Your task to perform on an android device: Open Wikipedia Image 0: 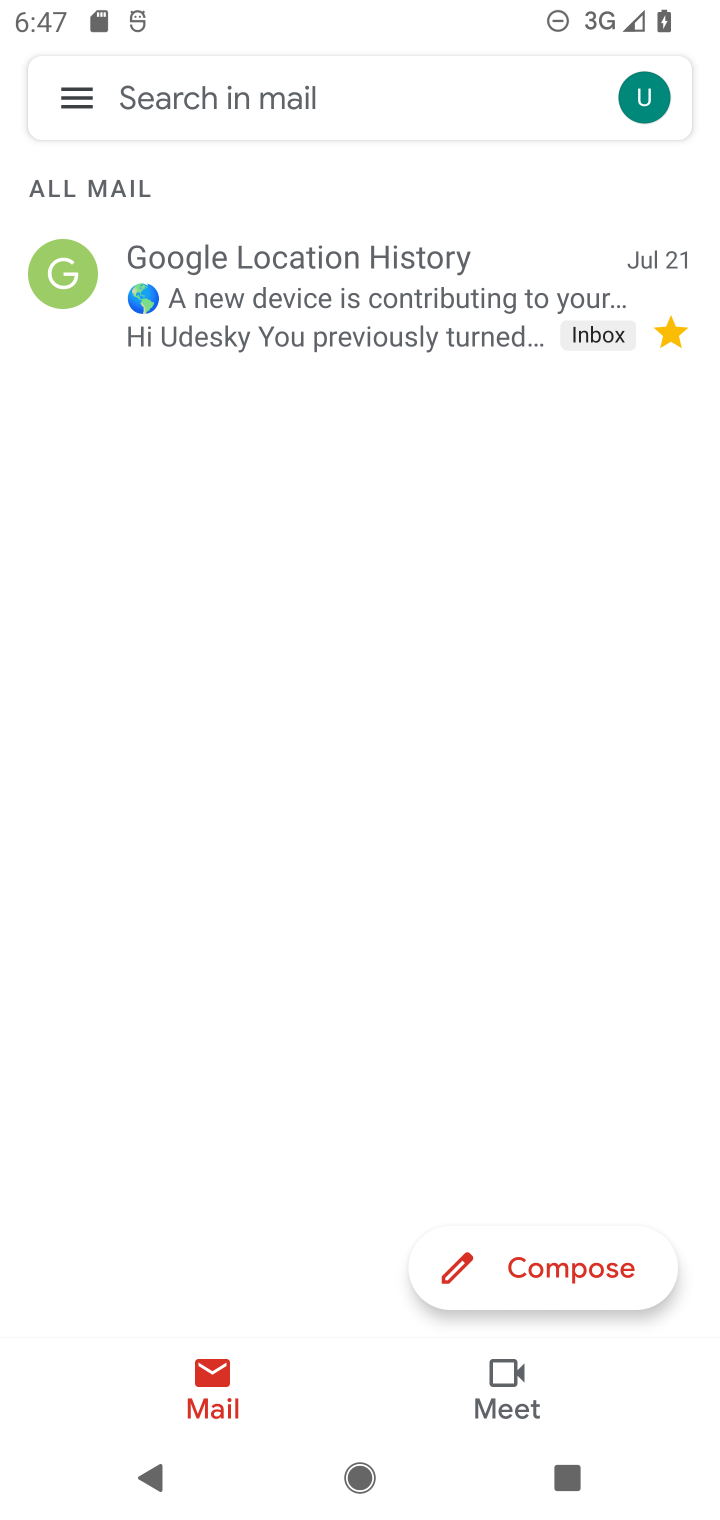
Step 0: press home button
Your task to perform on an android device: Open Wikipedia Image 1: 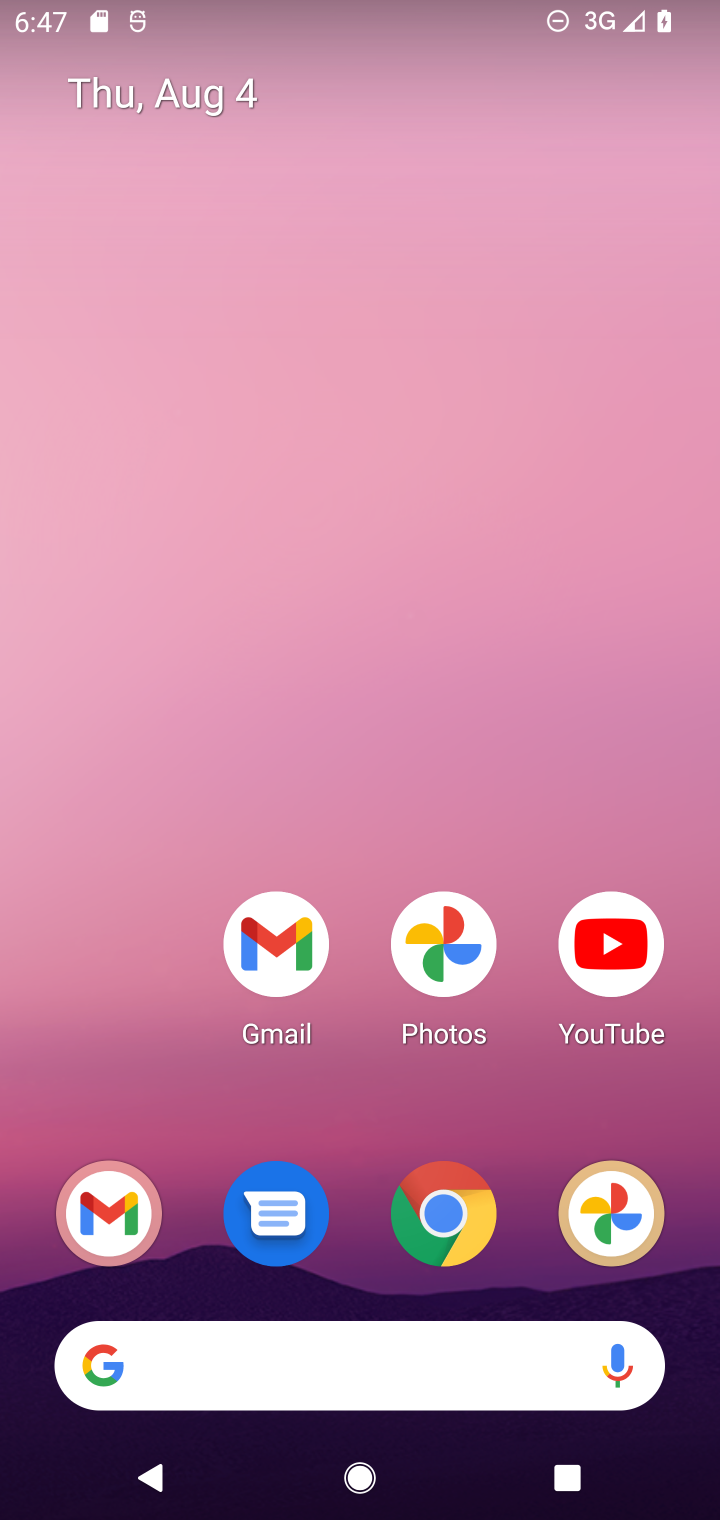
Step 1: drag from (159, 1081) to (119, 215)
Your task to perform on an android device: Open Wikipedia Image 2: 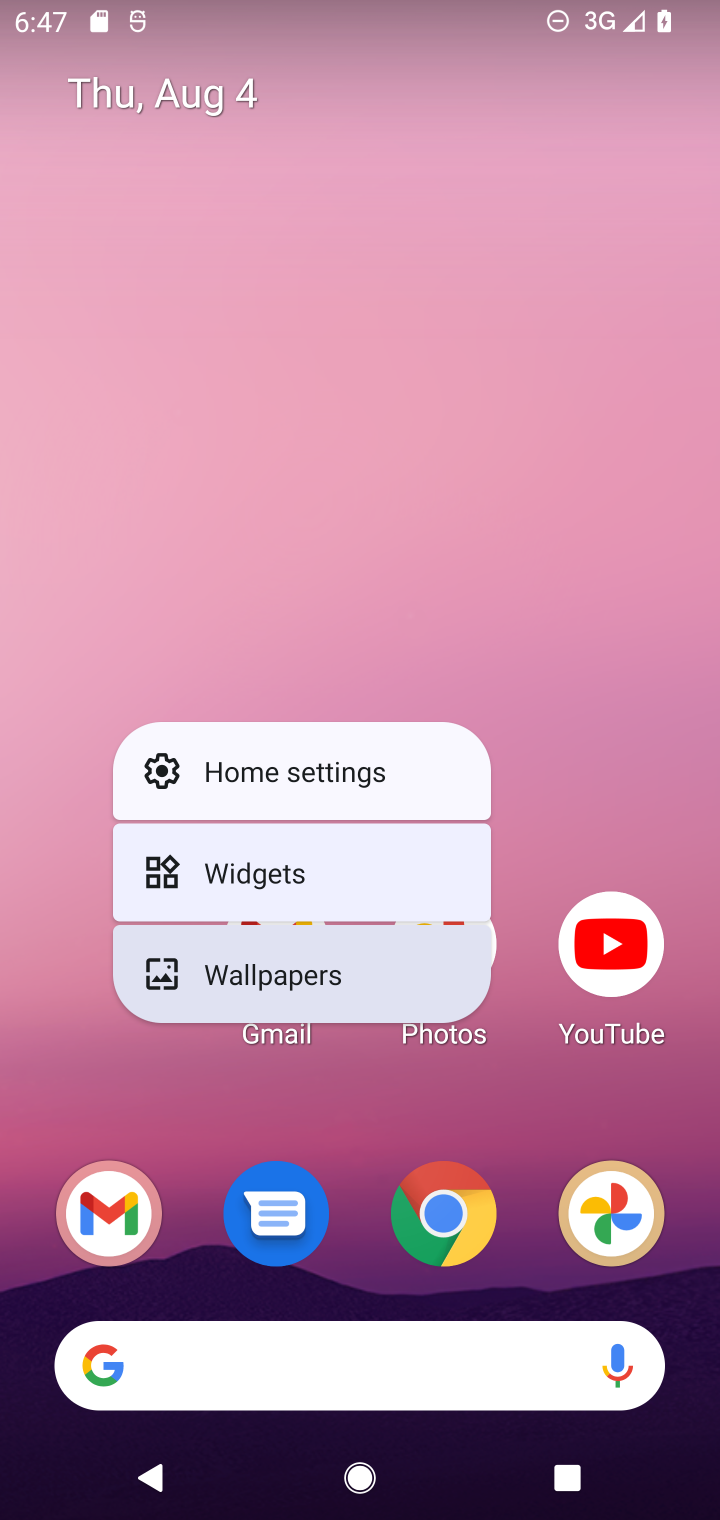
Step 2: click (92, 982)
Your task to perform on an android device: Open Wikipedia Image 3: 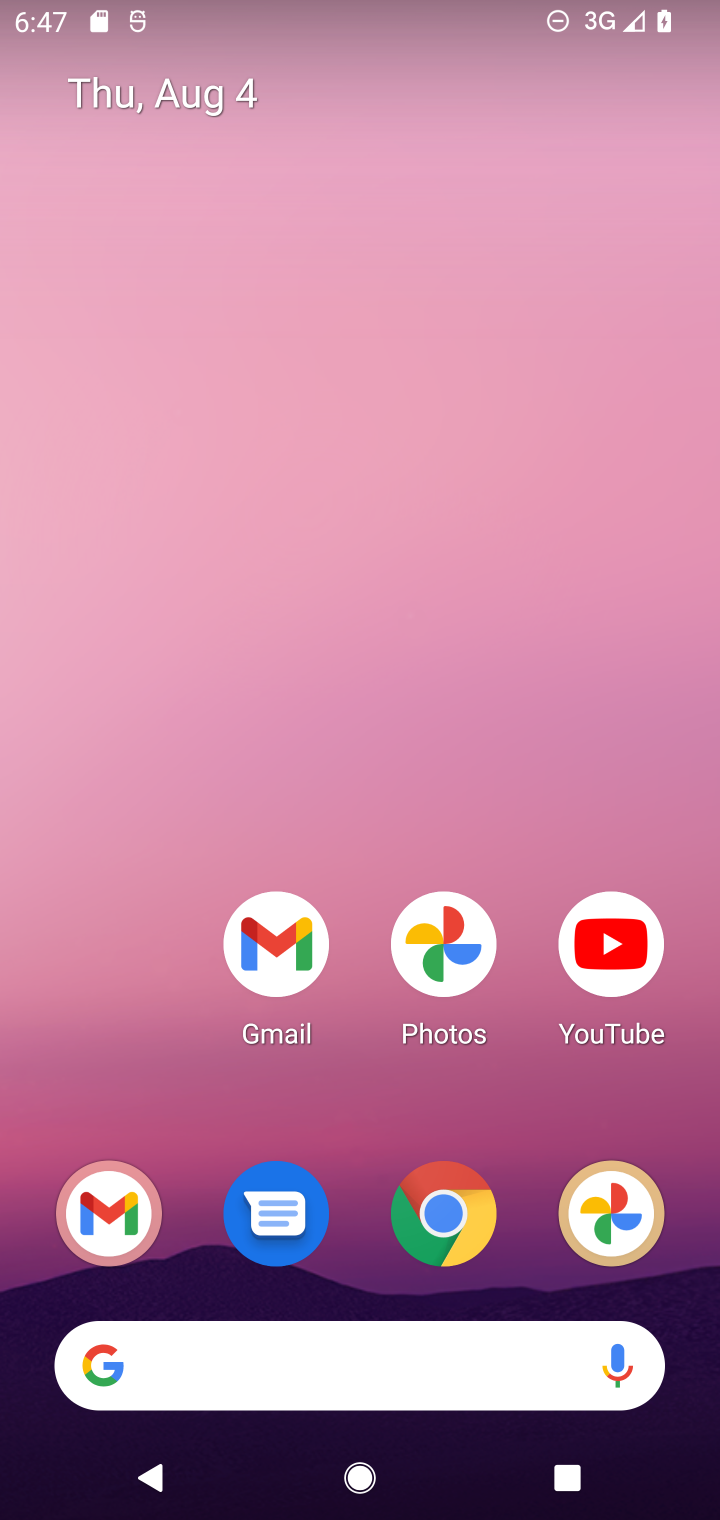
Step 3: drag from (114, 1021) to (111, 171)
Your task to perform on an android device: Open Wikipedia Image 4: 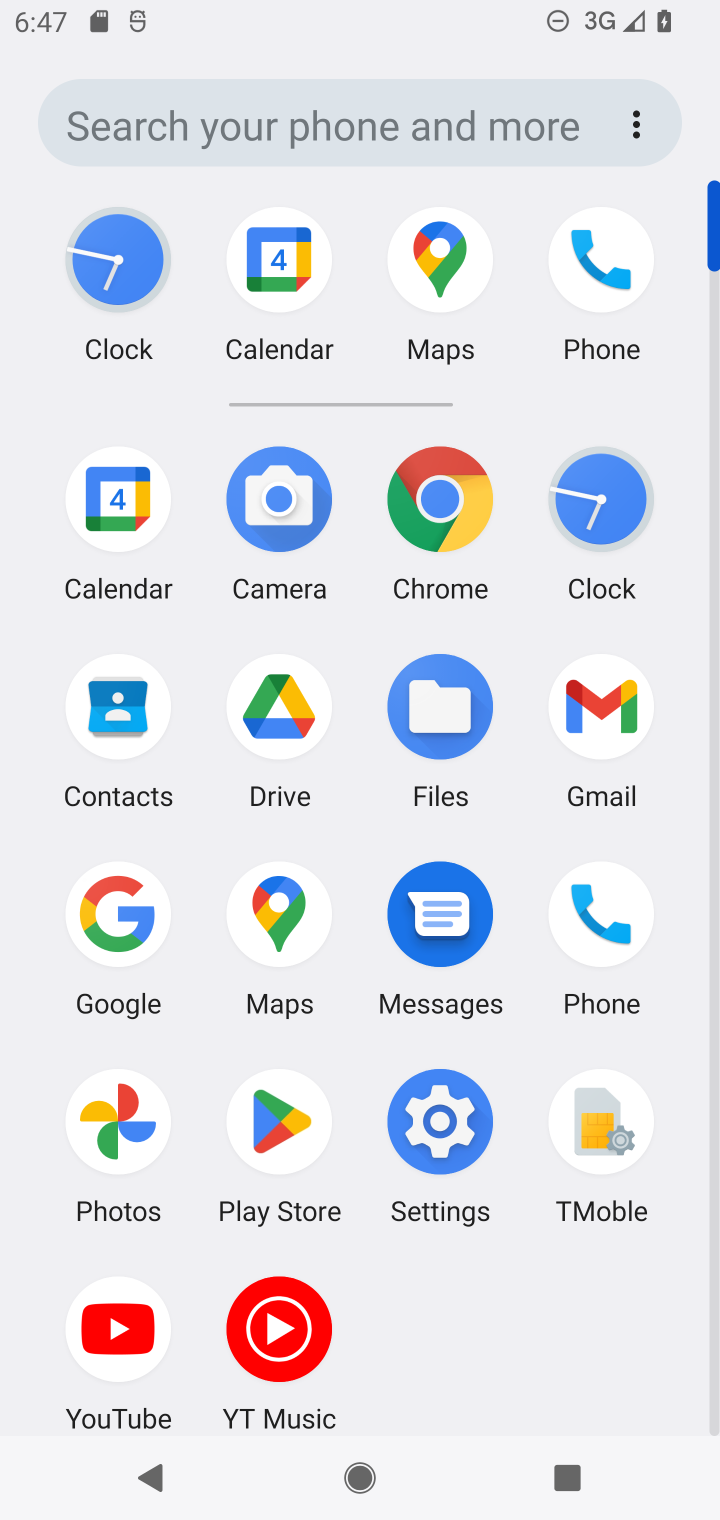
Step 4: click (437, 499)
Your task to perform on an android device: Open Wikipedia Image 5: 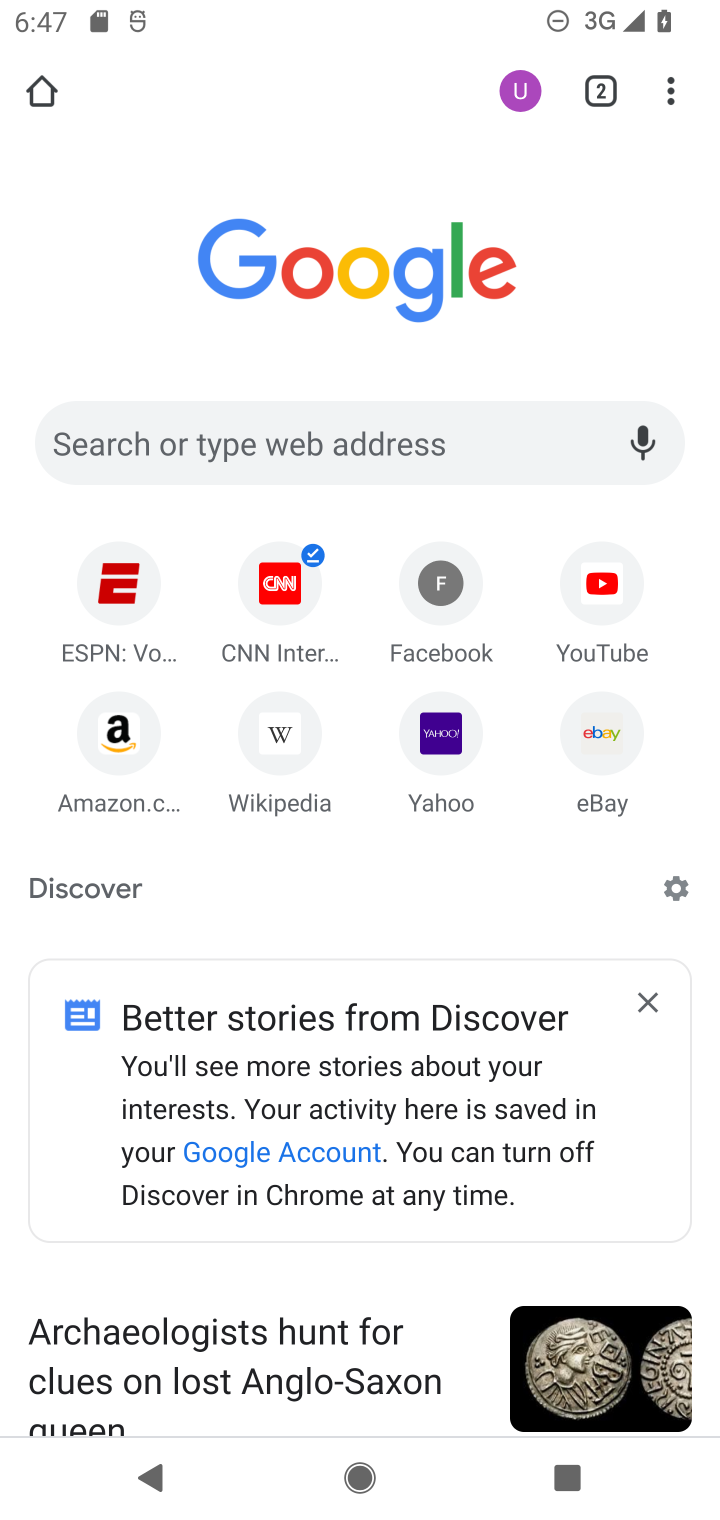
Step 5: click (458, 429)
Your task to perform on an android device: Open Wikipedia Image 6: 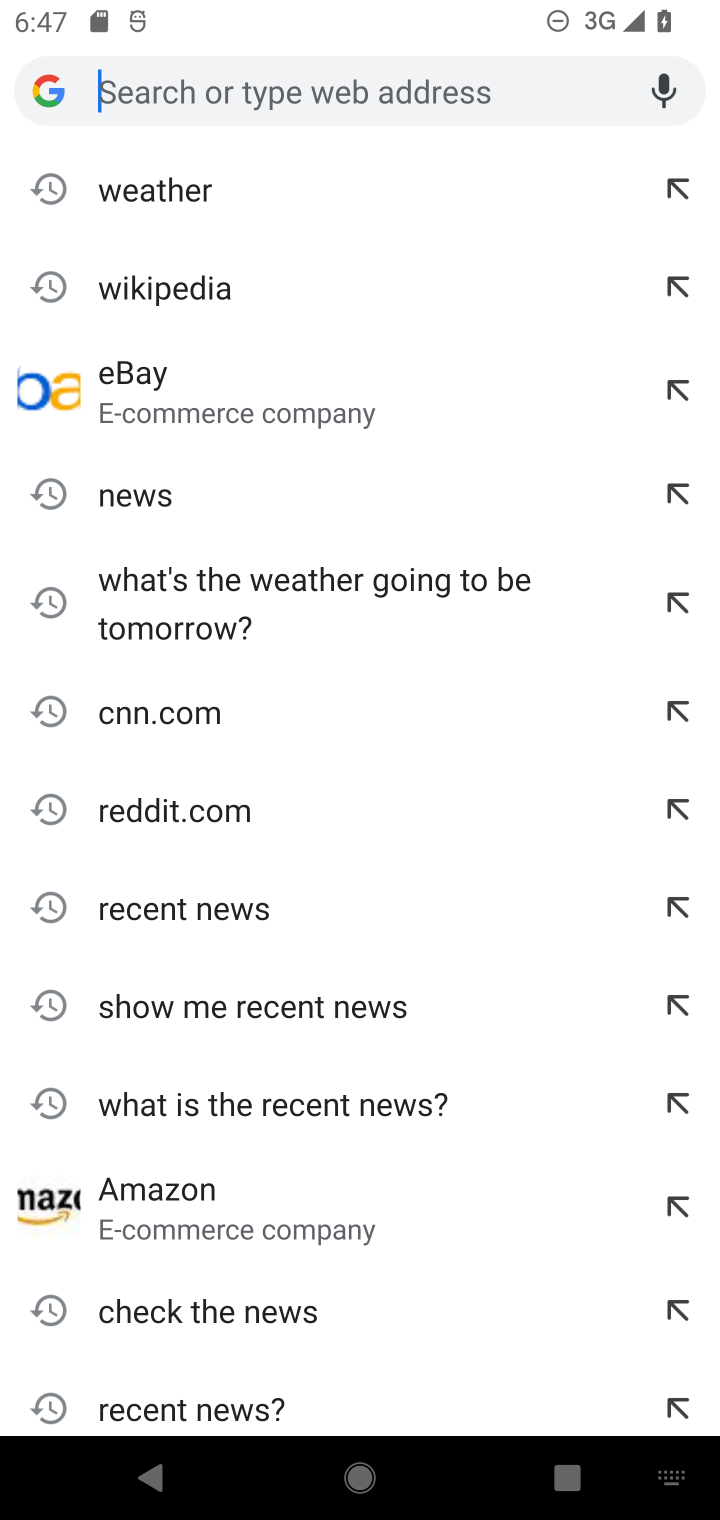
Step 6: type "wikipedia"
Your task to perform on an android device: Open Wikipedia Image 7: 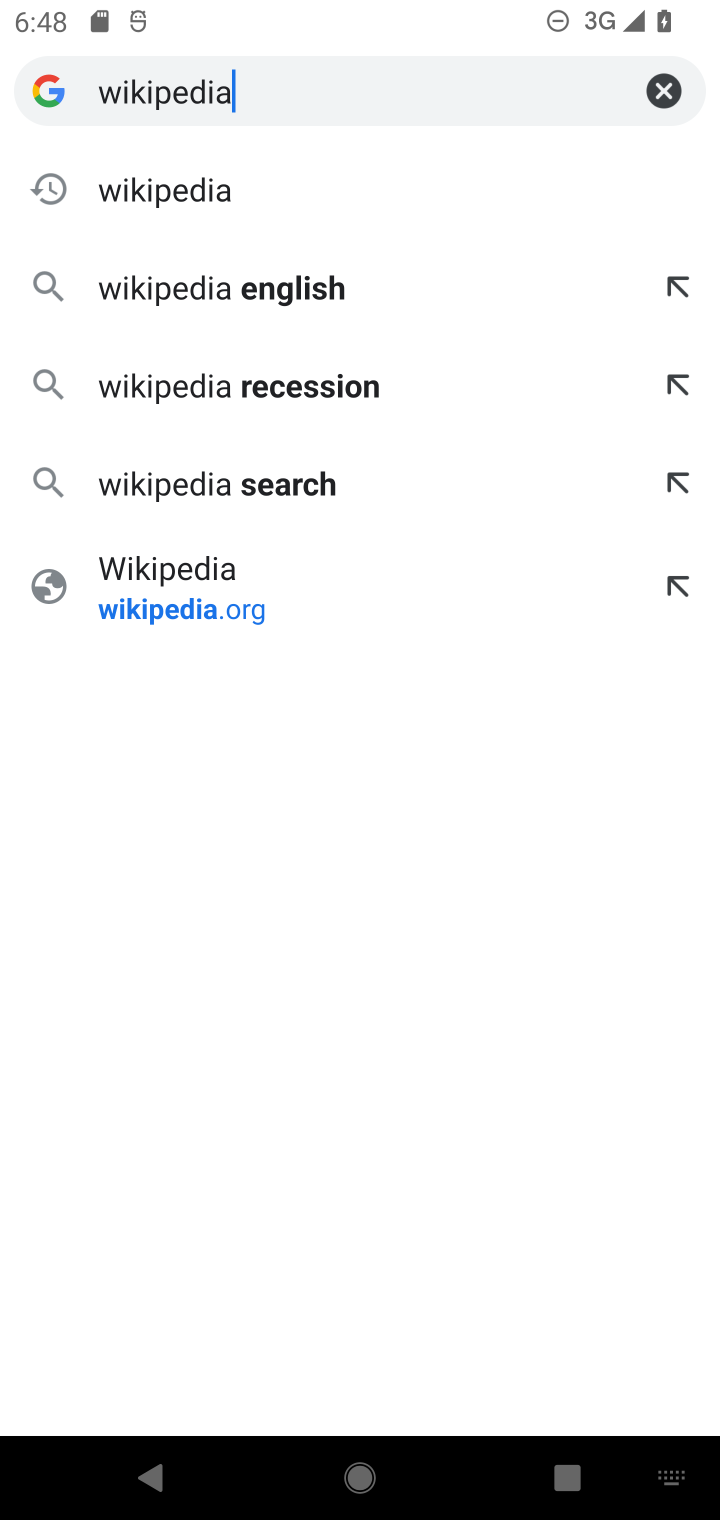
Step 7: click (264, 188)
Your task to perform on an android device: Open Wikipedia Image 8: 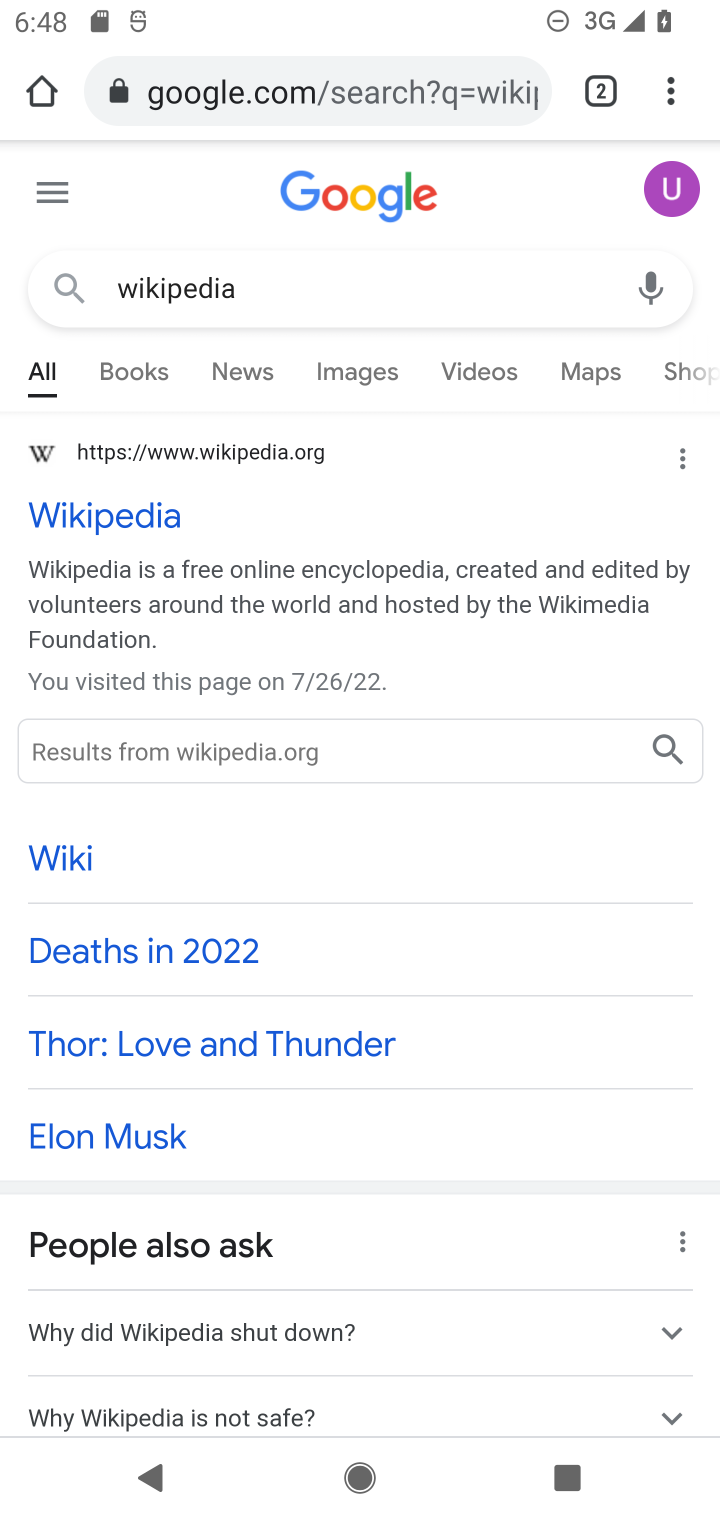
Step 8: task complete